Your task to perform on an android device: change the clock display to analog Image 0: 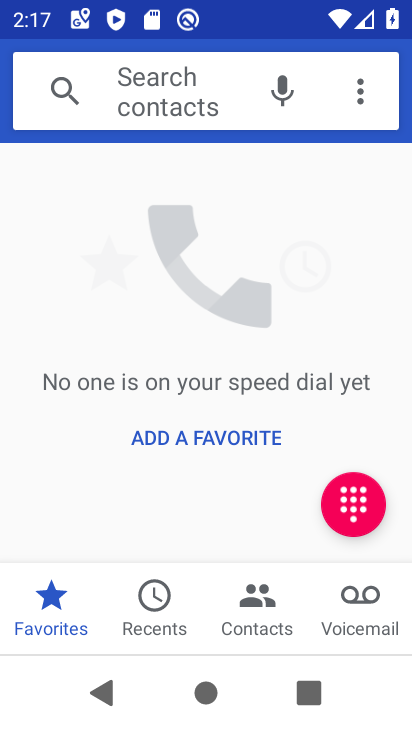
Step 0: press home button
Your task to perform on an android device: change the clock display to analog Image 1: 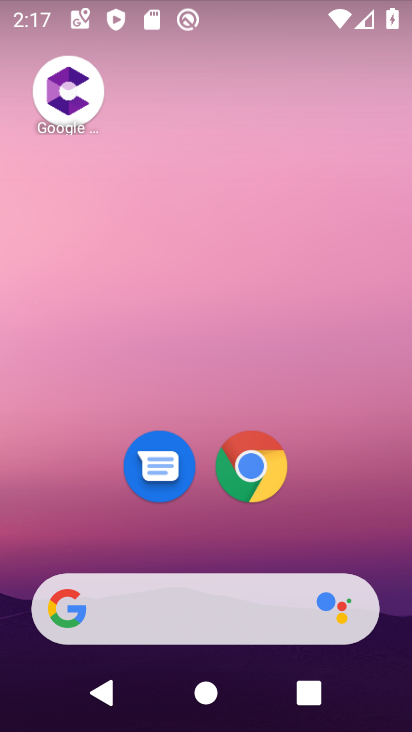
Step 1: drag from (332, 480) to (249, 120)
Your task to perform on an android device: change the clock display to analog Image 2: 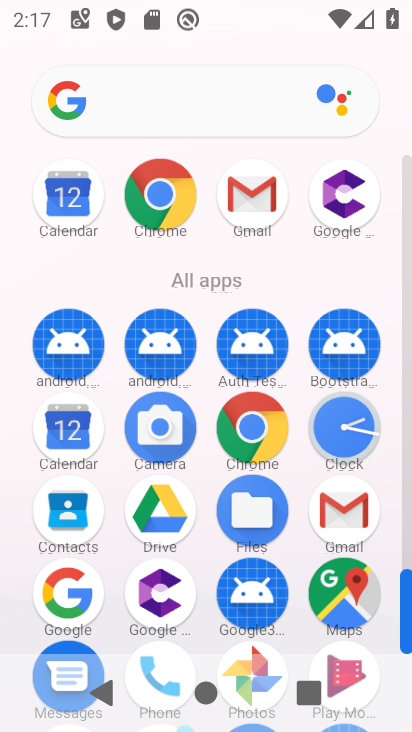
Step 2: click (356, 419)
Your task to perform on an android device: change the clock display to analog Image 3: 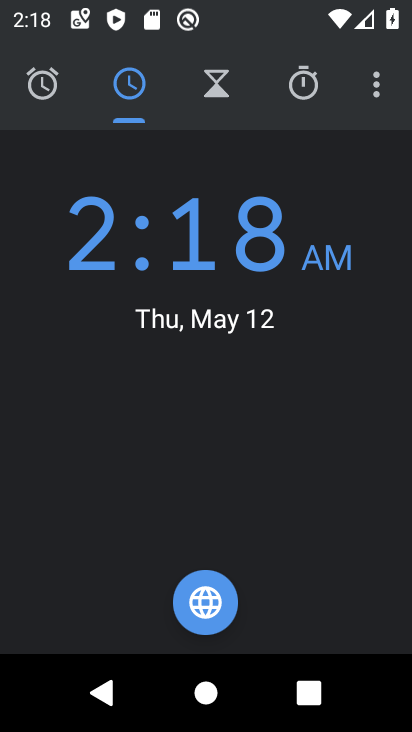
Step 3: click (378, 86)
Your task to perform on an android device: change the clock display to analog Image 4: 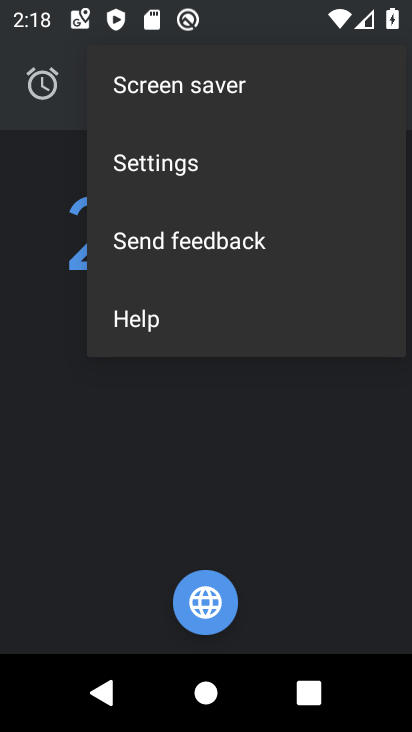
Step 4: click (153, 162)
Your task to perform on an android device: change the clock display to analog Image 5: 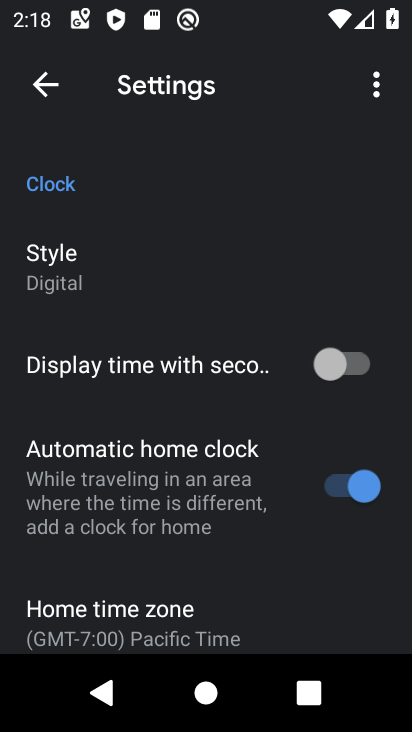
Step 5: click (59, 287)
Your task to perform on an android device: change the clock display to analog Image 6: 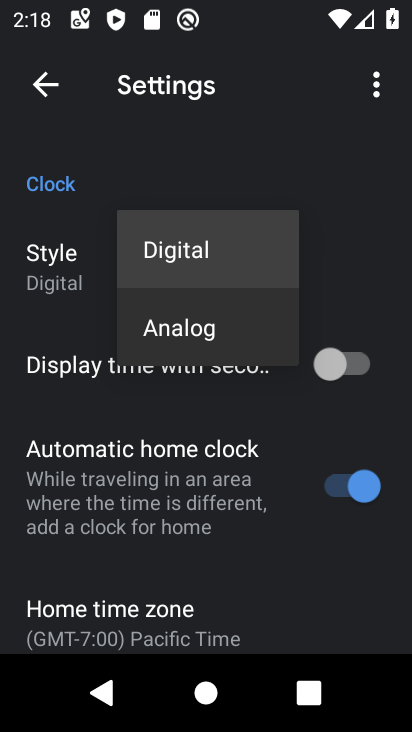
Step 6: click (190, 323)
Your task to perform on an android device: change the clock display to analog Image 7: 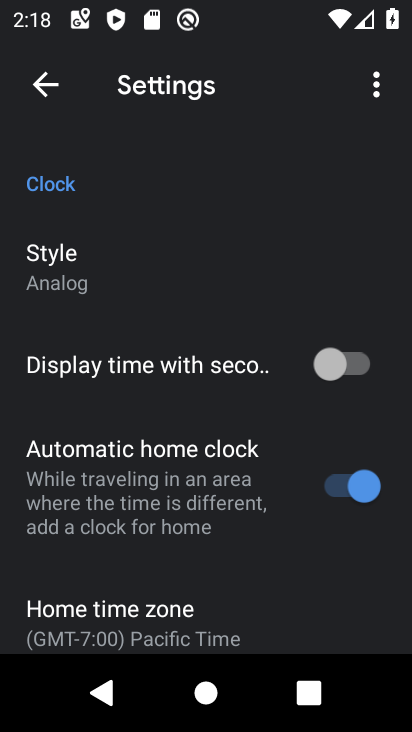
Step 7: task complete